Your task to perform on an android device: open app "Google Translate" Image 0: 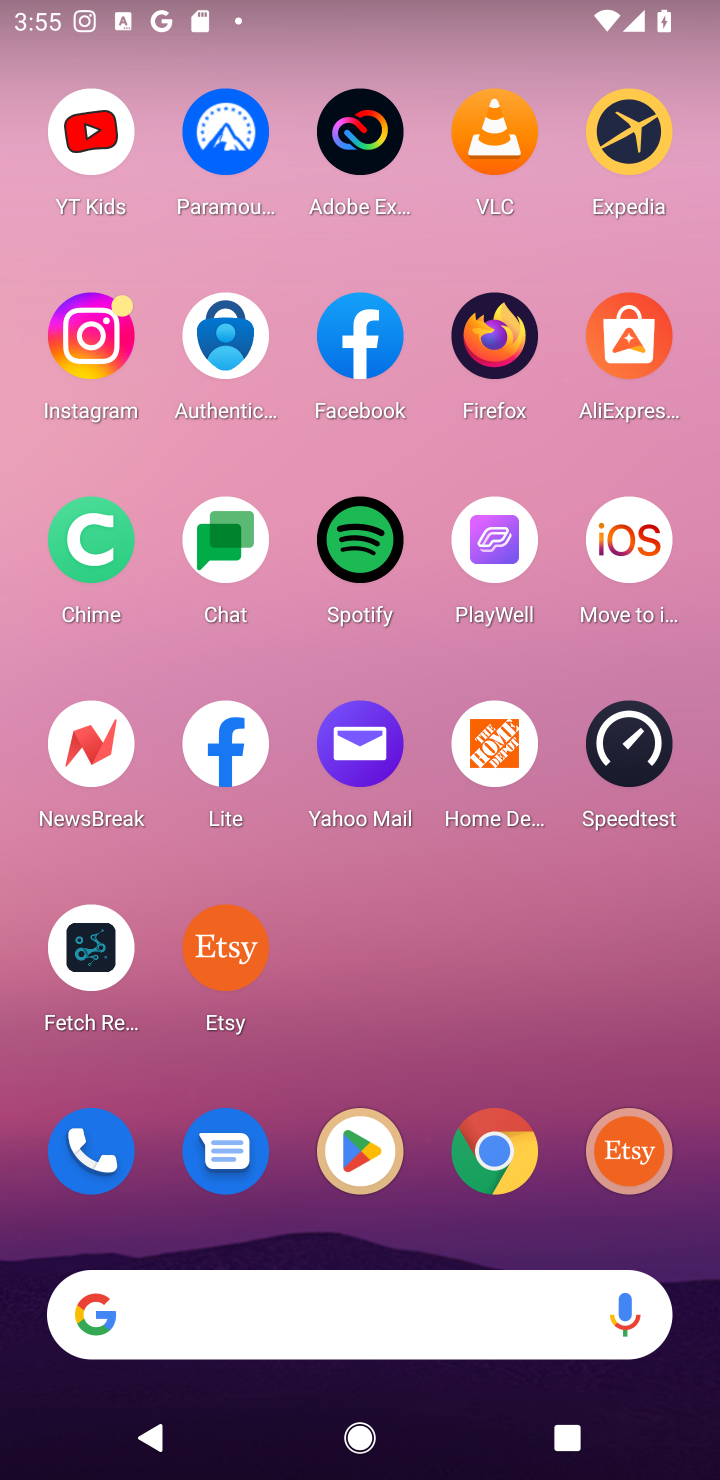
Step 0: press home button
Your task to perform on an android device: open app "Google Translate" Image 1: 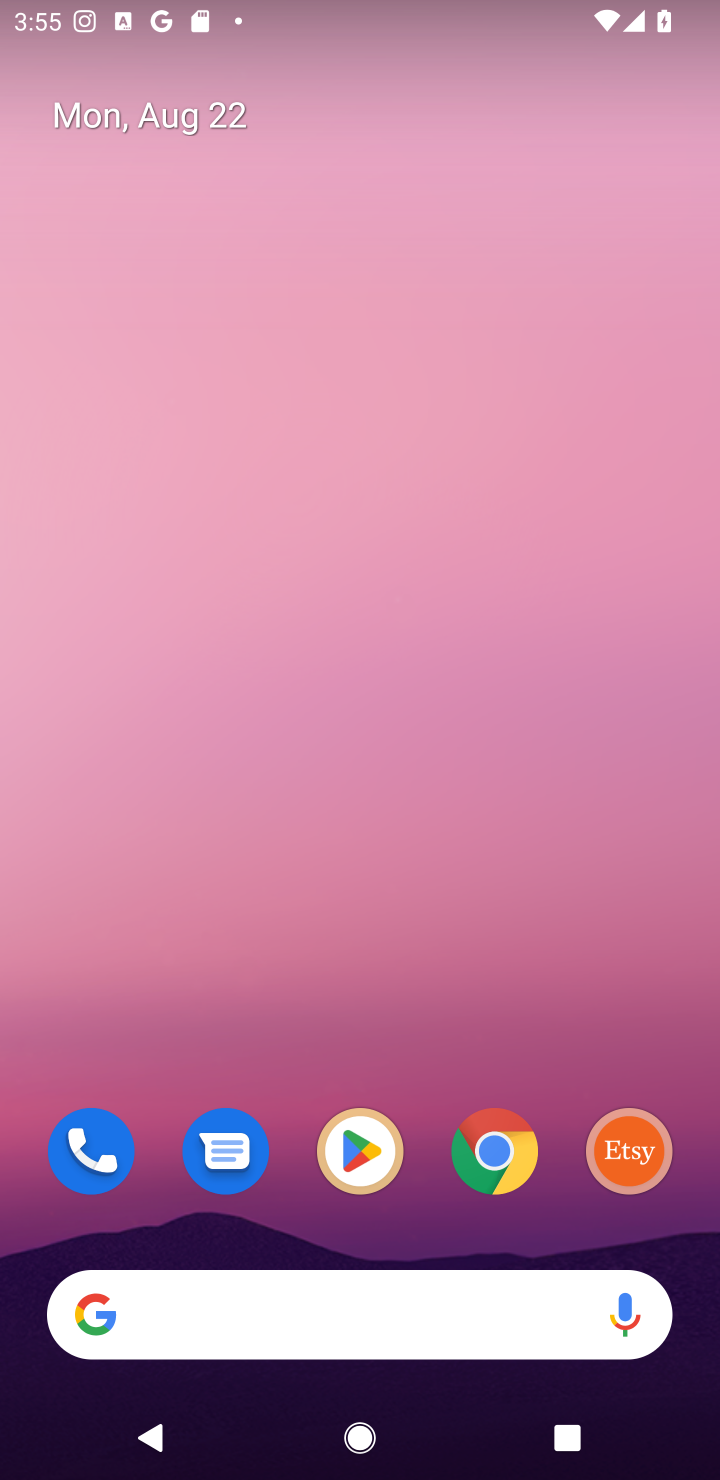
Step 1: click (354, 1145)
Your task to perform on an android device: open app "Google Translate" Image 2: 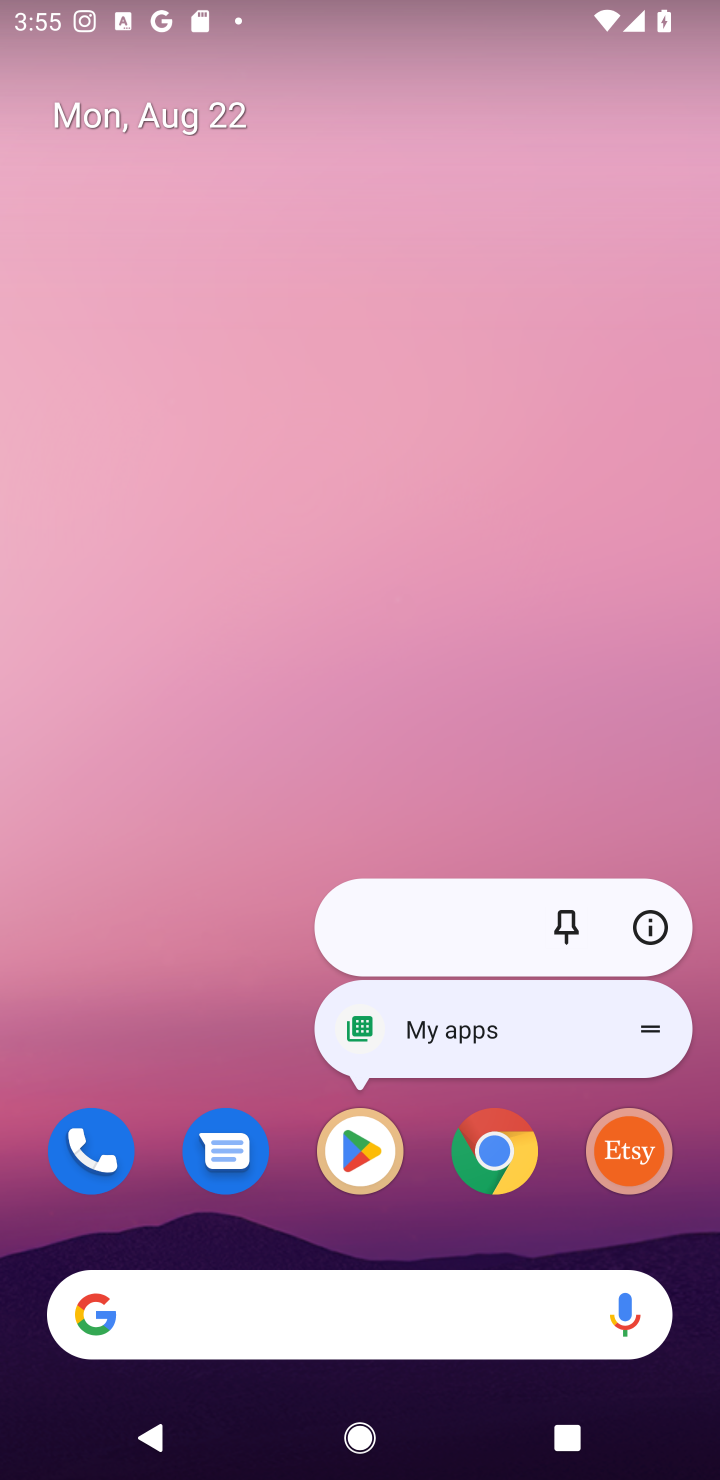
Step 2: click (354, 1148)
Your task to perform on an android device: open app "Google Translate" Image 3: 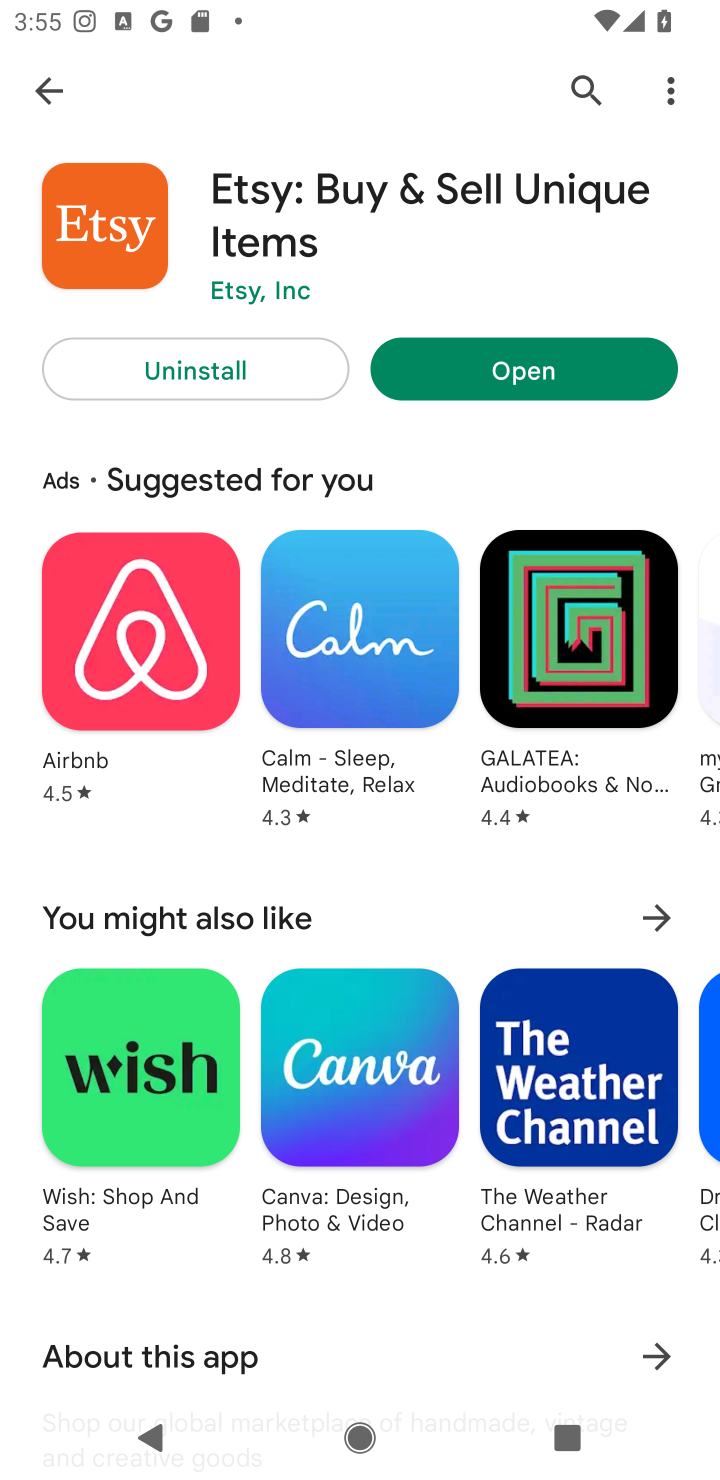
Step 3: click (585, 72)
Your task to perform on an android device: open app "Google Translate" Image 4: 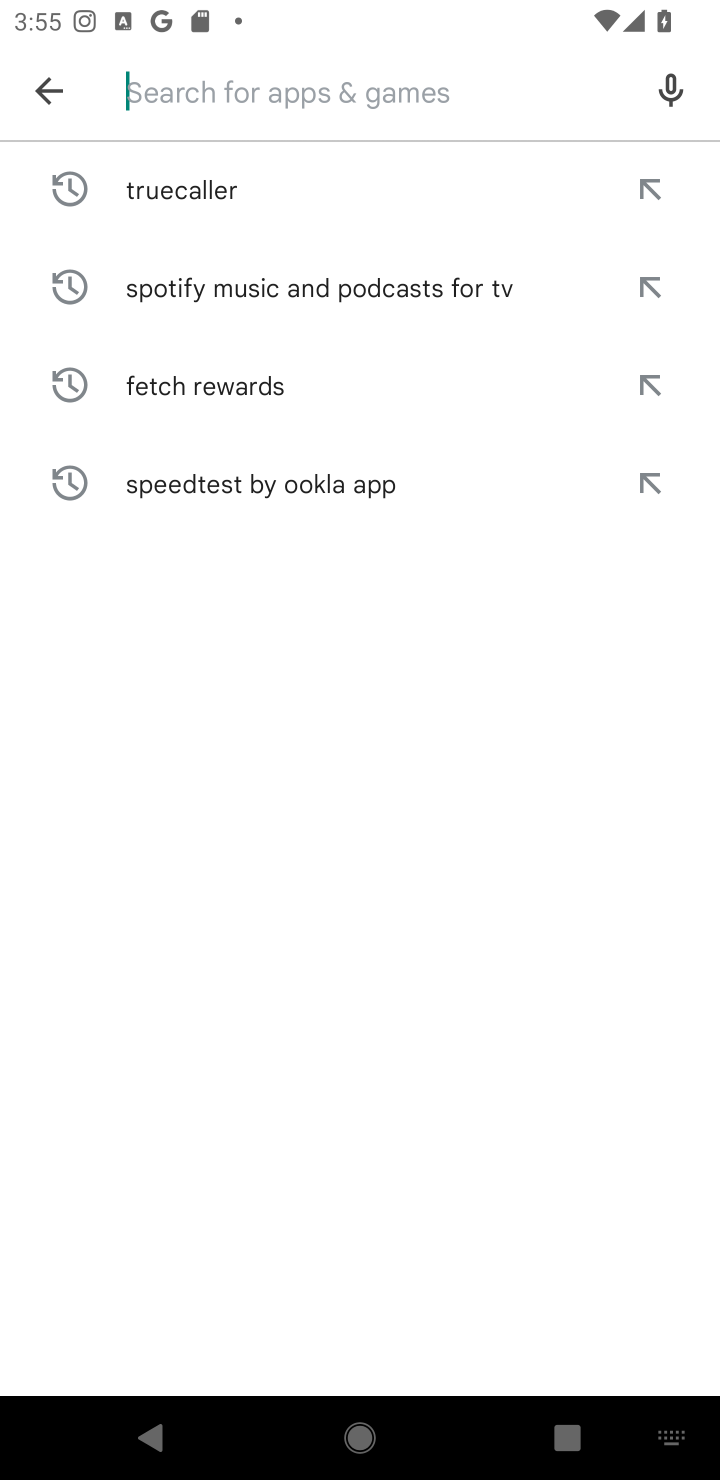
Step 4: type "Google Translate"
Your task to perform on an android device: open app "Google Translate" Image 5: 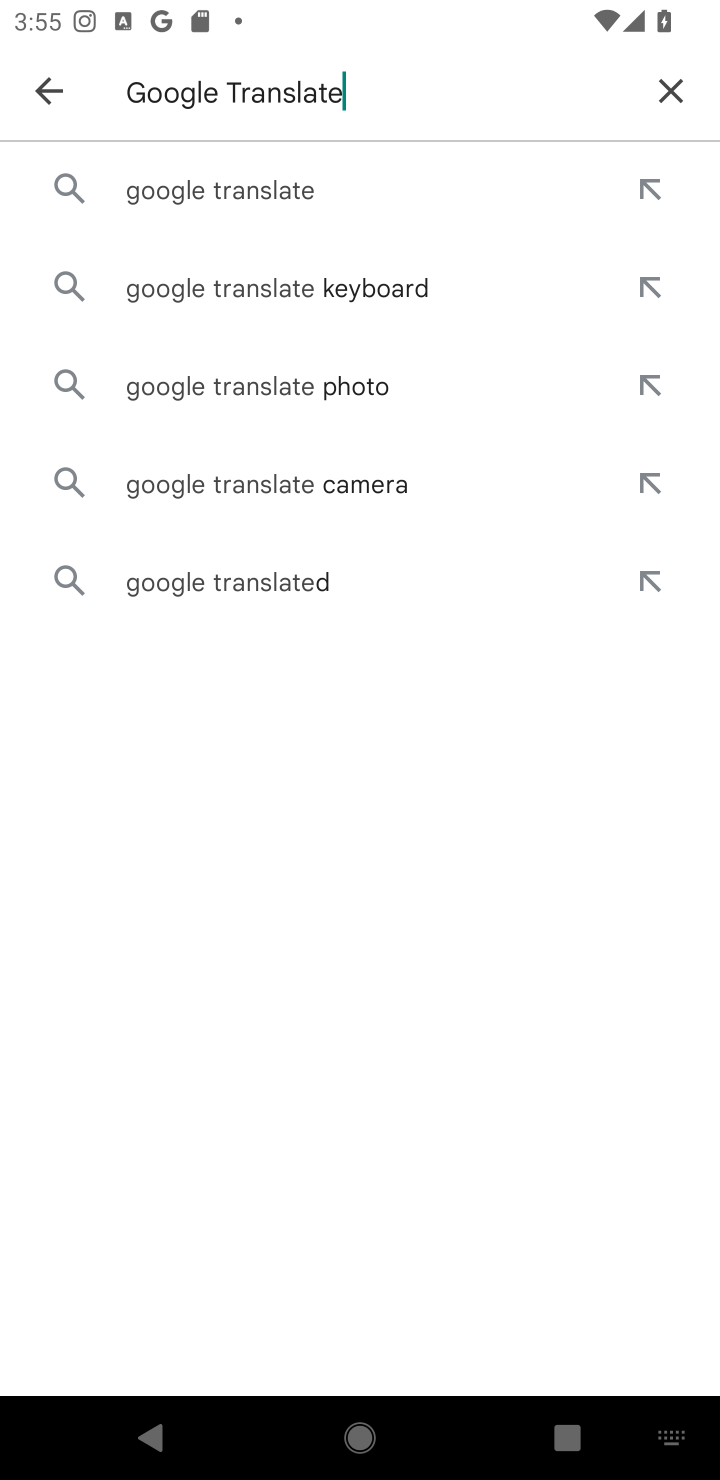
Step 5: click (295, 180)
Your task to perform on an android device: open app "Google Translate" Image 6: 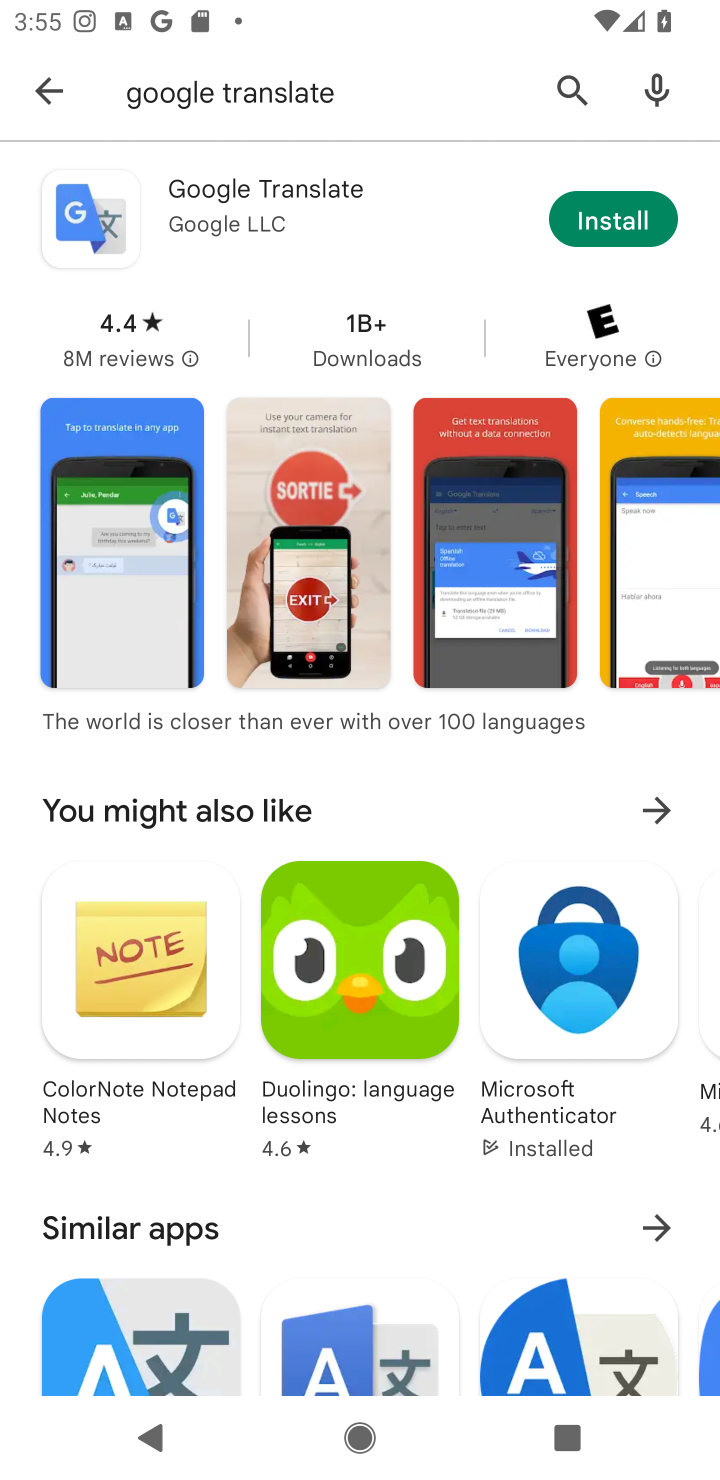
Step 6: task complete